Your task to perform on an android device: allow cookies in the chrome app Image 0: 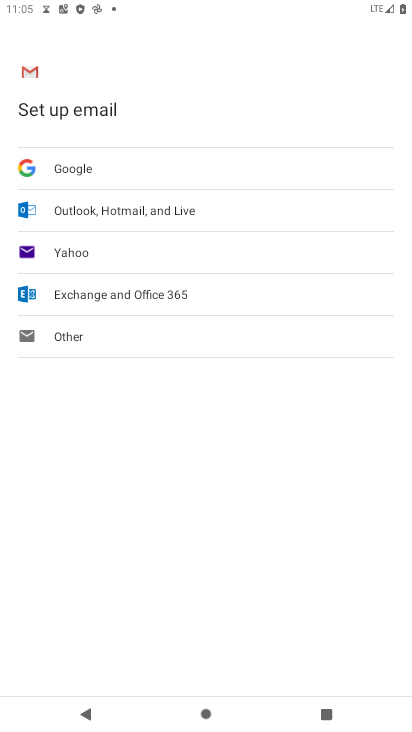
Step 0: press home button
Your task to perform on an android device: allow cookies in the chrome app Image 1: 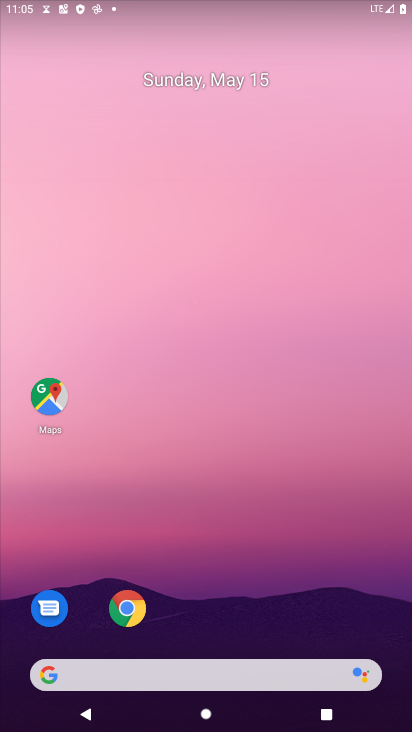
Step 1: click (331, 4)
Your task to perform on an android device: allow cookies in the chrome app Image 2: 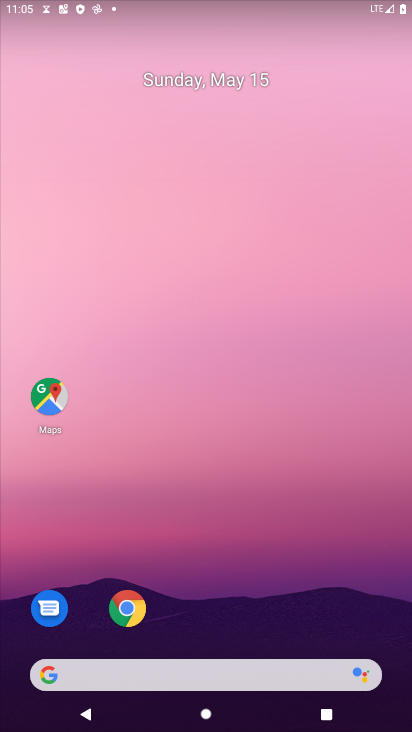
Step 2: drag from (258, 551) to (279, 172)
Your task to perform on an android device: allow cookies in the chrome app Image 3: 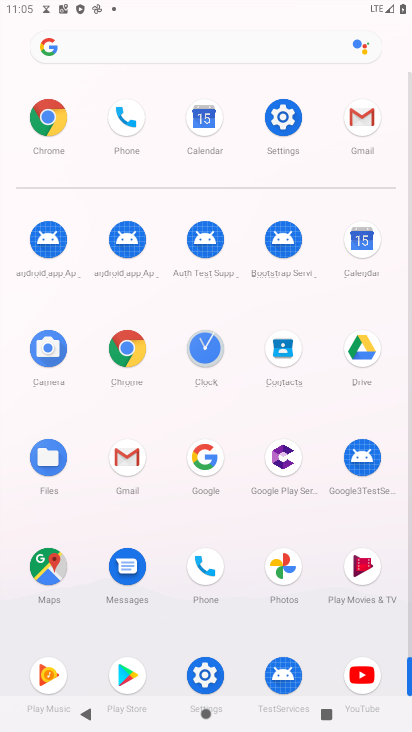
Step 3: click (29, 134)
Your task to perform on an android device: allow cookies in the chrome app Image 4: 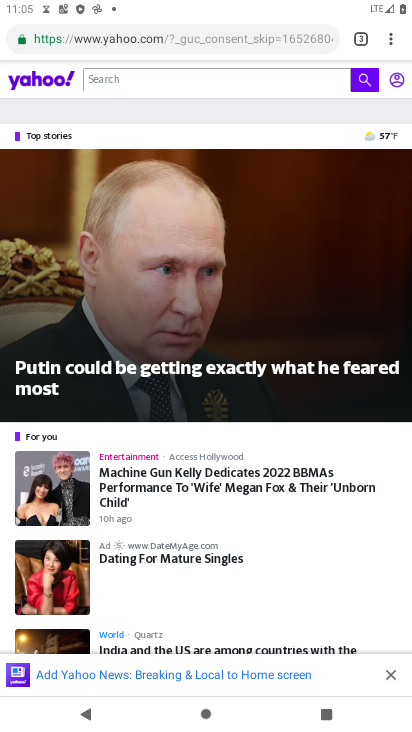
Step 4: drag from (388, 46) to (229, 471)
Your task to perform on an android device: allow cookies in the chrome app Image 5: 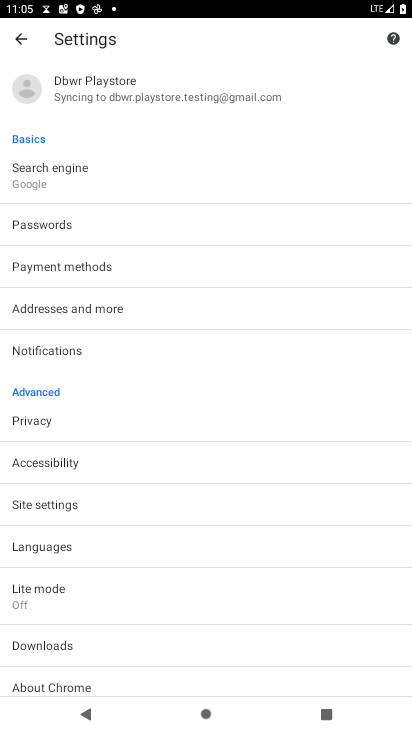
Step 5: click (64, 496)
Your task to perform on an android device: allow cookies in the chrome app Image 6: 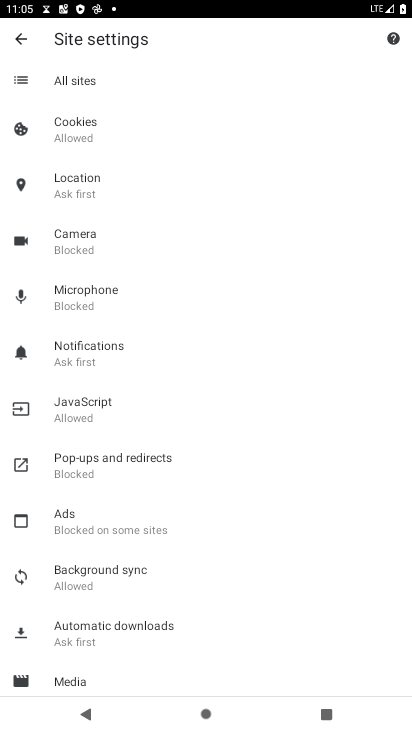
Step 6: task complete